Your task to perform on an android device: turn off location history Image 0: 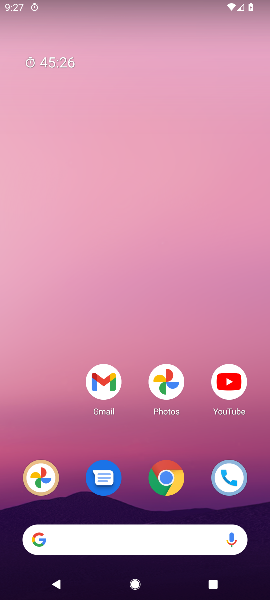
Step 0: press home button
Your task to perform on an android device: turn off location history Image 1: 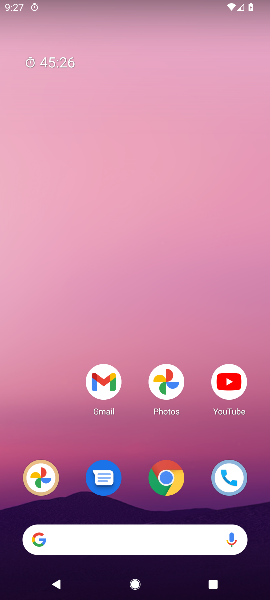
Step 1: press home button
Your task to perform on an android device: turn off location history Image 2: 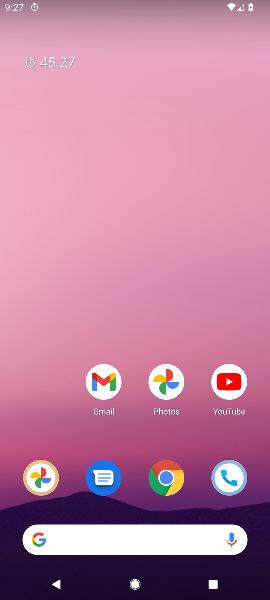
Step 2: drag from (134, 451) to (142, 8)
Your task to perform on an android device: turn off location history Image 3: 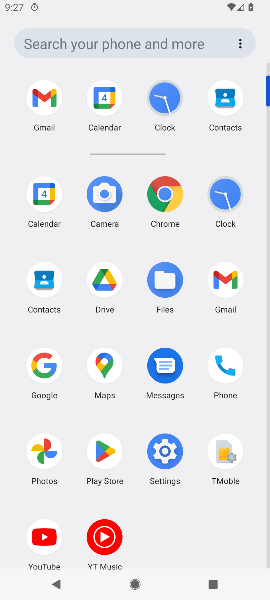
Step 3: click (111, 394)
Your task to perform on an android device: turn off location history Image 4: 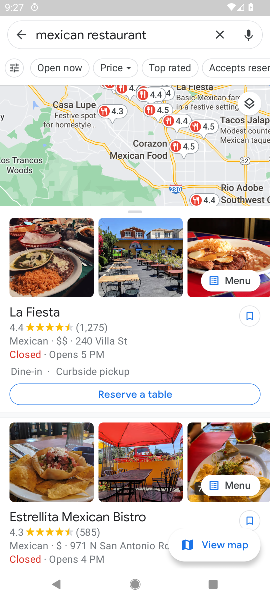
Step 4: click (23, 39)
Your task to perform on an android device: turn off location history Image 5: 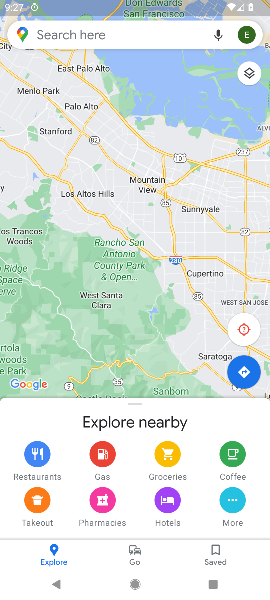
Step 5: click (23, 39)
Your task to perform on an android device: turn off location history Image 6: 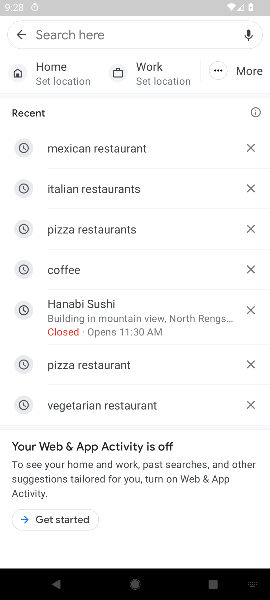
Step 6: click (18, 30)
Your task to perform on an android device: turn off location history Image 7: 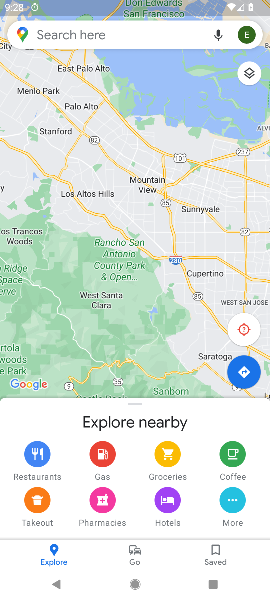
Step 7: click (245, 28)
Your task to perform on an android device: turn off location history Image 8: 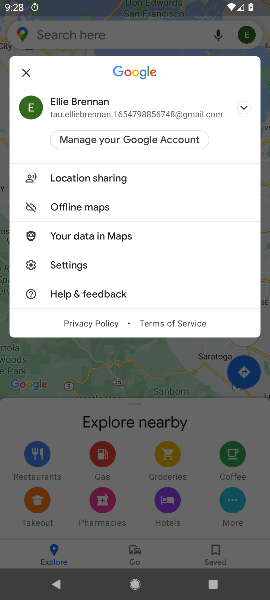
Step 8: click (55, 258)
Your task to perform on an android device: turn off location history Image 9: 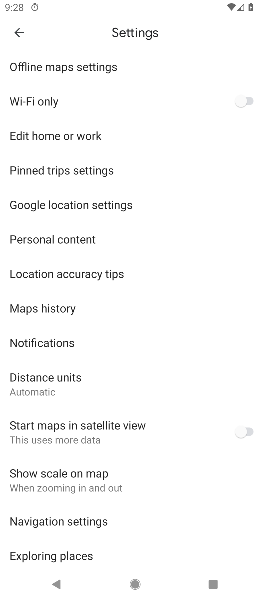
Step 9: click (37, 311)
Your task to perform on an android device: turn off location history Image 10: 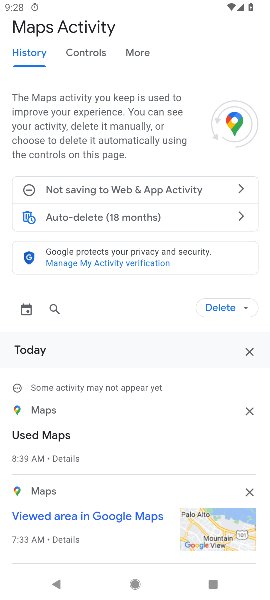
Step 10: click (83, 51)
Your task to perform on an android device: turn off location history Image 11: 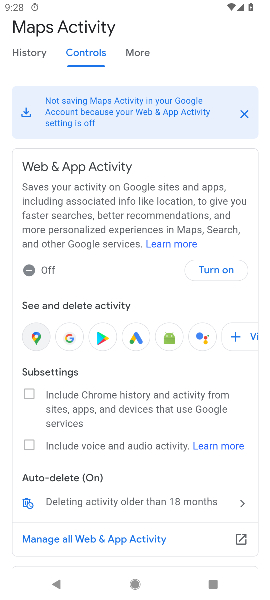
Step 11: task complete